Your task to perform on an android device: Show me popular games on the Play Store Image 0: 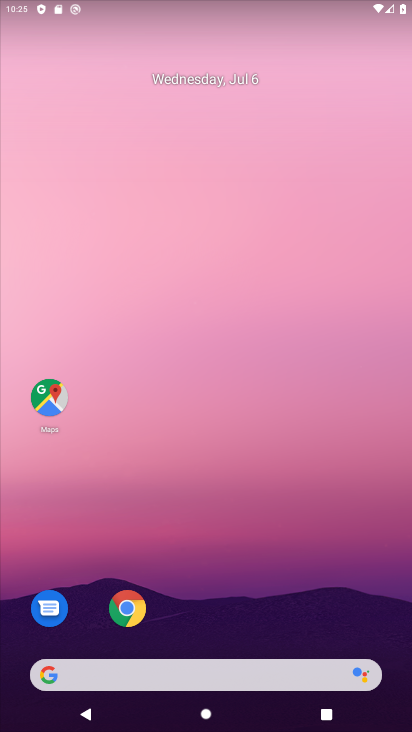
Step 0: drag from (231, 627) to (181, 7)
Your task to perform on an android device: Show me popular games on the Play Store Image 1: 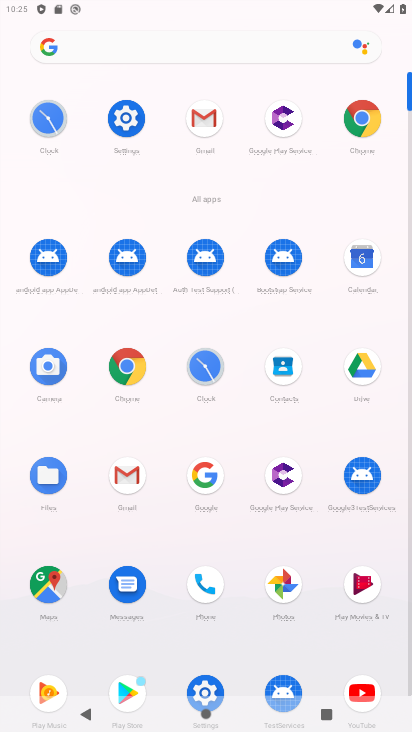
Step 1: drag from (161, 451) to (169, 19)
Your task to perform on an android device: Show me popular games on the Play Store Image 2: 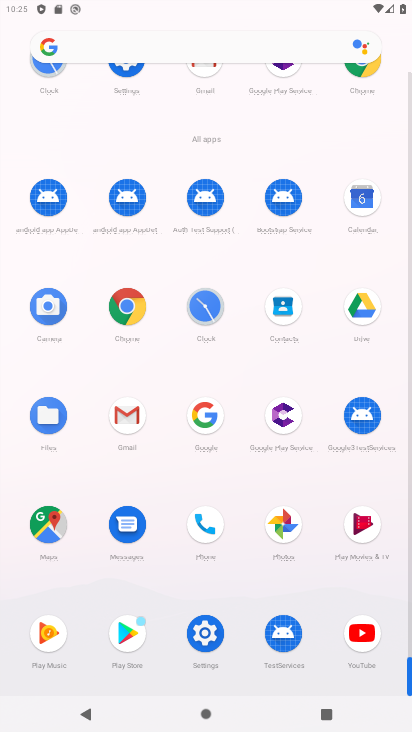
Step 2: click (128, 635)
Your task to perform on an android device: Show me popular games on the Play Store Image 3: 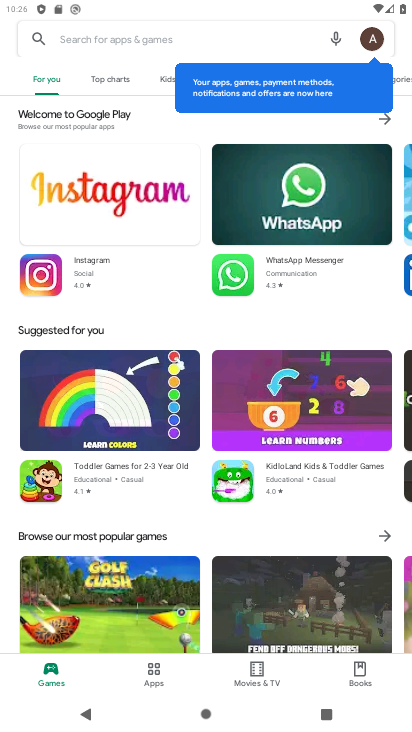
Step 3: click (138, 36)
Your task to perform on an android device: Show me popular games on the Play Store Image 4: 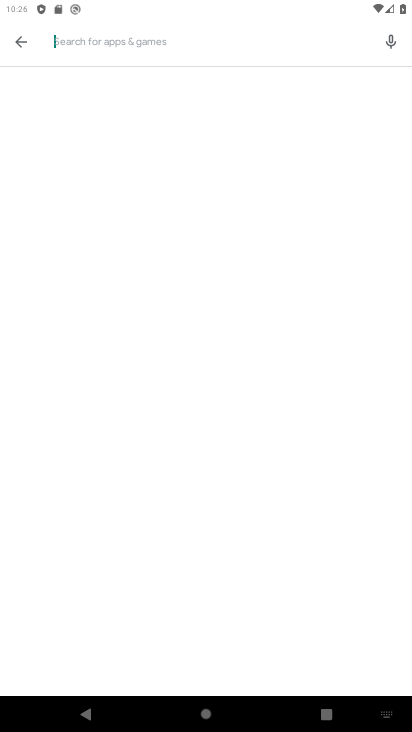
Step 4: type "popular games"
Your task to perform on an android device: Show me popular games on the Play Store Image 5: 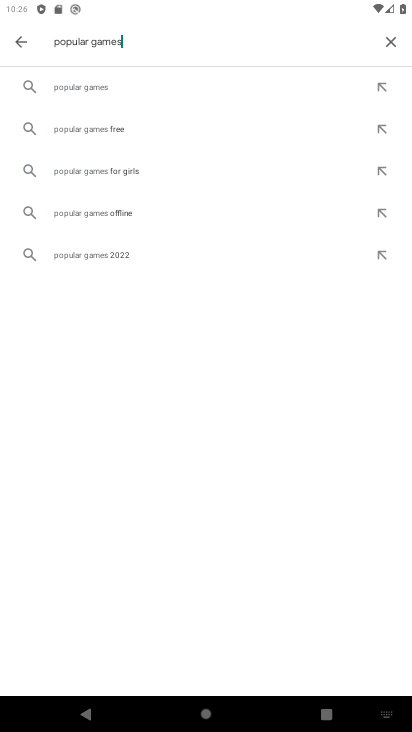
Step 5: click (69, 83)
Your task to perform on an android device: Show me popular games on the Play Store Image 6: 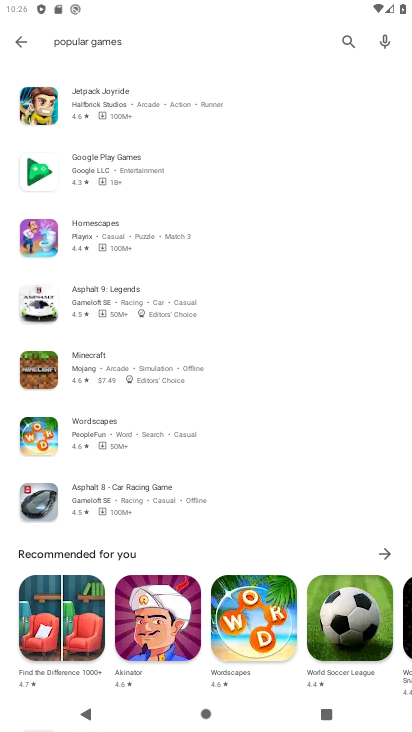
Step 6: task complete